Your task to perform on an android device: set the stopwatch Image 0: 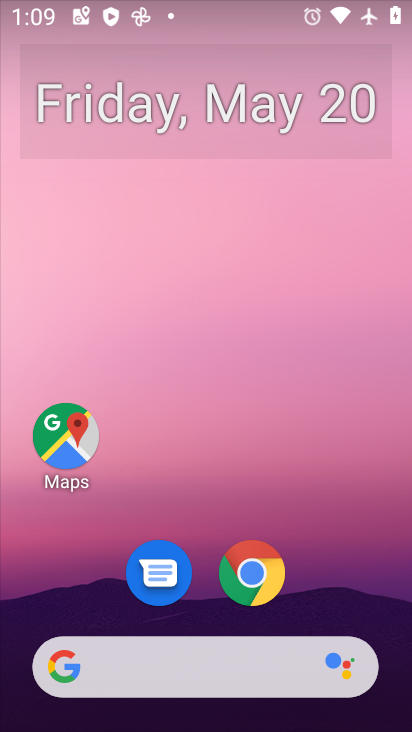
Step 0: drag from (345, 534) to (294, 100)
Your task to perform on an android device: set the stopwatch Image 1: 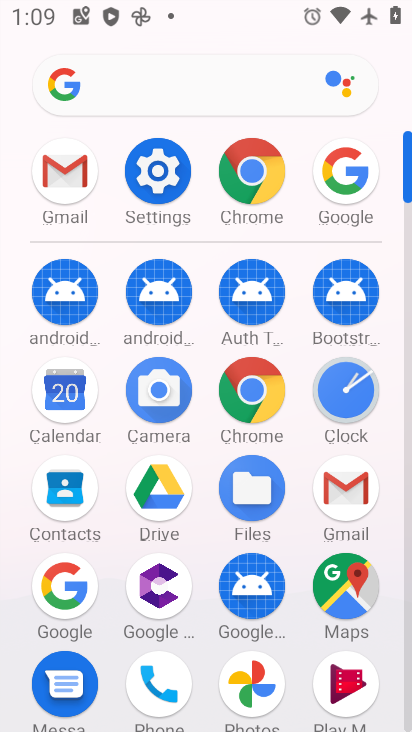
Step 1: click (354, 393)
Your task to perform on an android device: set the stopwatch Image 2: 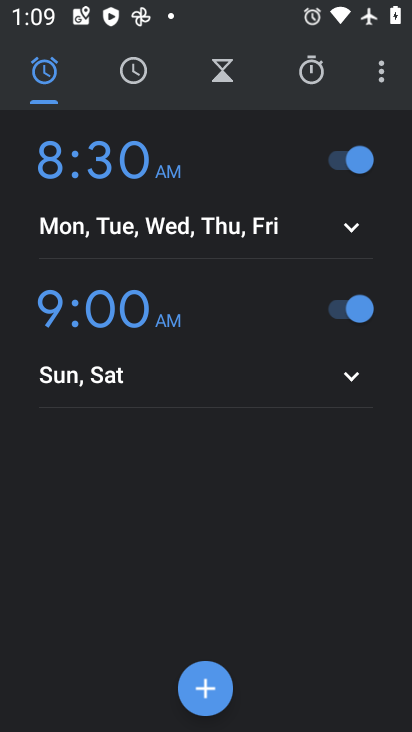
Step 2: click (304, 59)
Your task to perform on an android device: set the stopwatch Image 3: 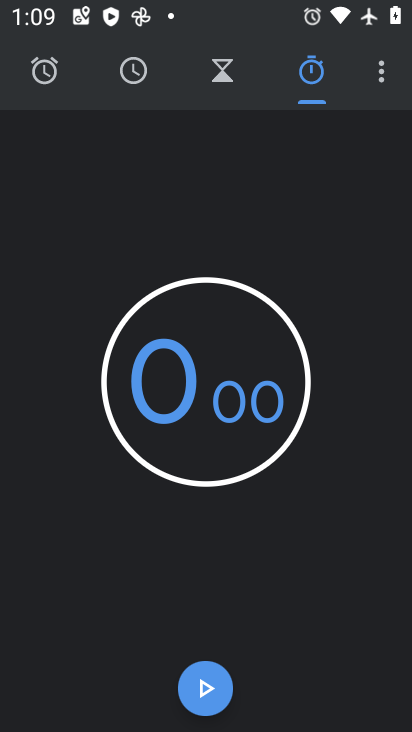
Step 3: click (217, 686)
Your task to perform on an android device: set the stopwatch Image 4: 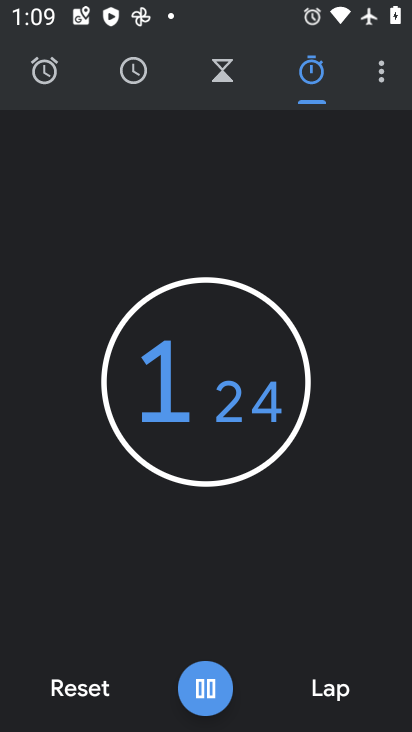
Step 4: click (217, 686)
Your task to perform on an android device: set the stopwatch Image 5: 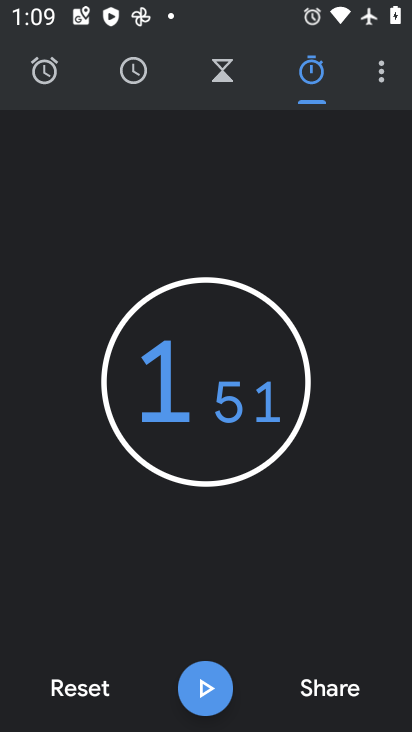
Step 5: task complete